Your task to perform on an android device: Where can I buy a nice beach hat? Image 0: 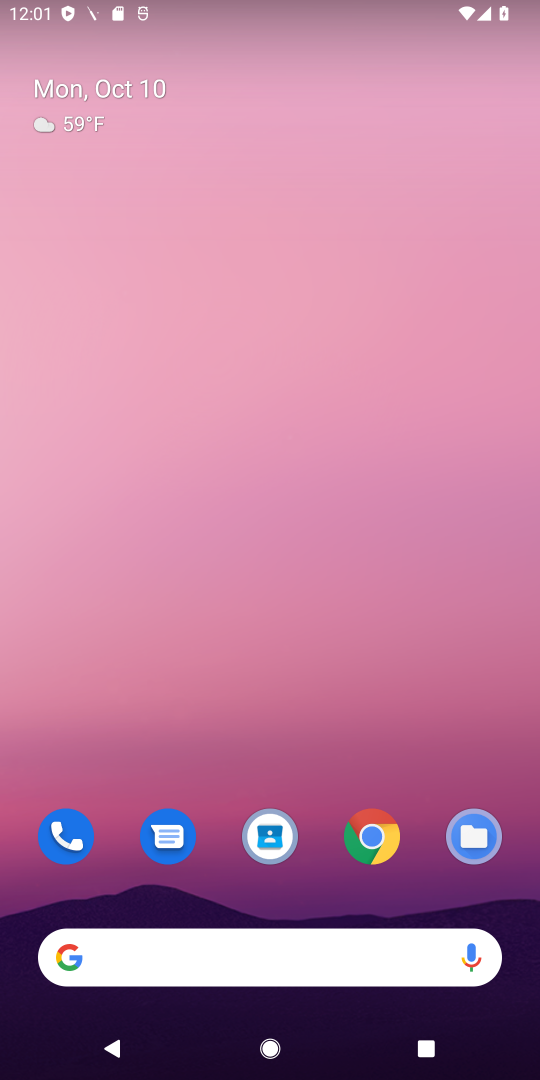
Step 0: click (361, 853)
Your task to perform on an android device: Where can I buy a nice beach hat? Image 1: 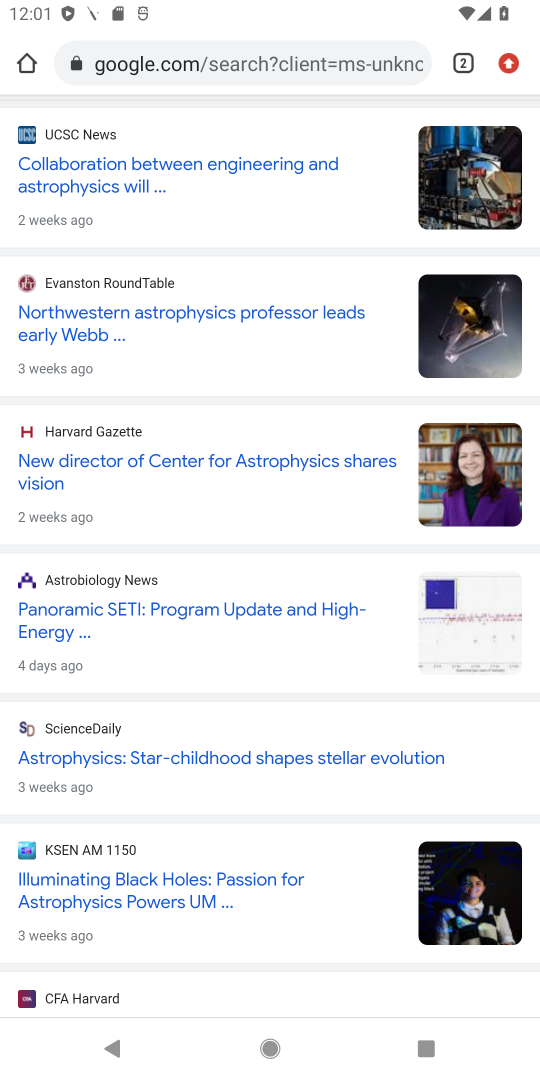
Step 1: click (245, 64)
Your task to perform on an android device: Where can I buy a nice beach hat? Image 2: 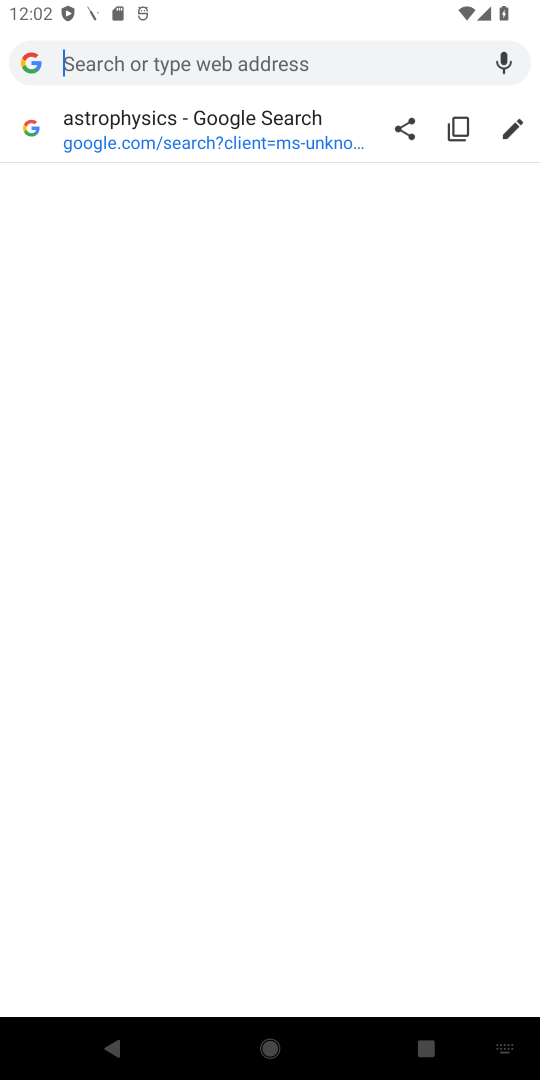
Step 2: type "buy a nice beach hat?"
Your task to perform on an android device: Where can I buy a nice beach hat? Image 3: 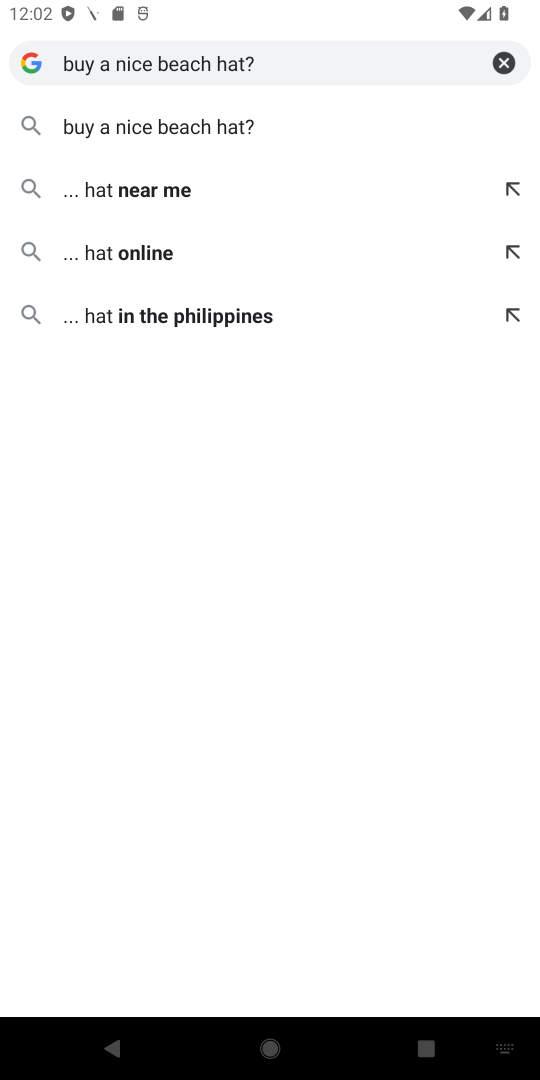
Step 3: click (229, 128)
Your task to perform on an android device: Where can I buy a nice beach hat? Image 4: 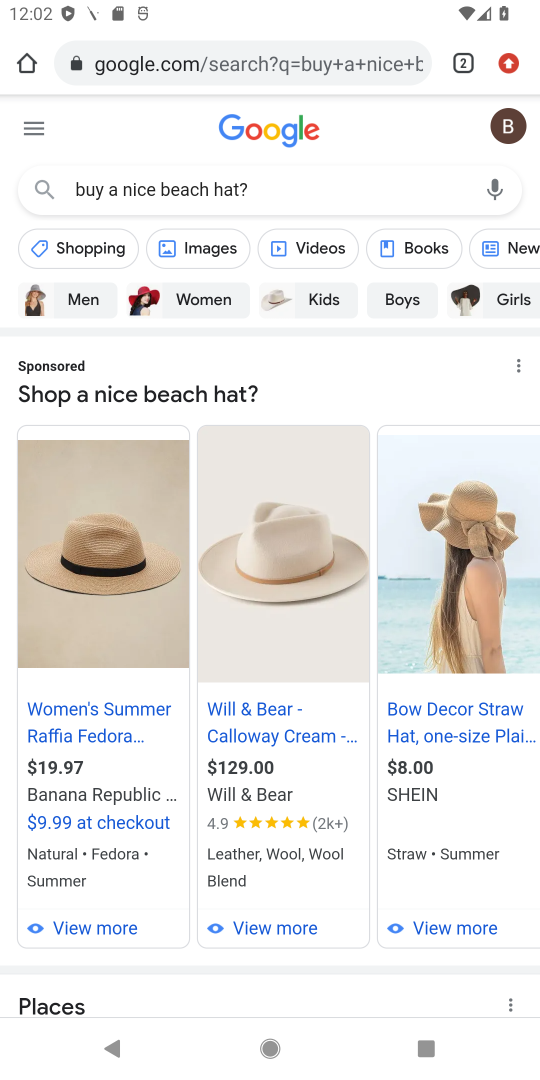
Step 4: task complete